Your task to perform on an android device: Show the shopping cart on walmart. Search for panasonic triple a on walmart, select the first entry, add it to the cart, then select checkout. Image 0: 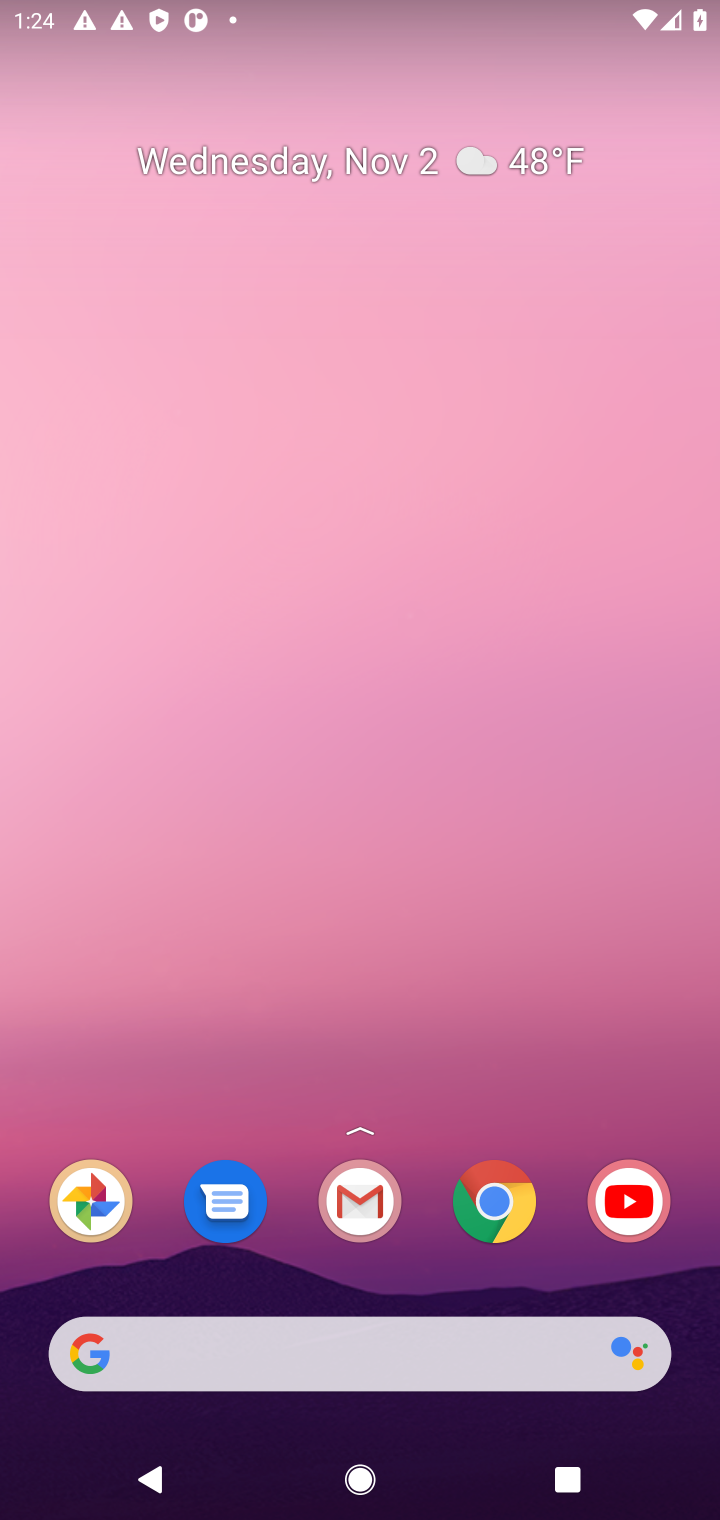
Step 0: click (513, 1210)
Your task to perform on an android device: Show the shopping cart on walmart. Search for panasonic triple a on walmart, select the first entry, add it to the cart, then select checkout. Image 1: 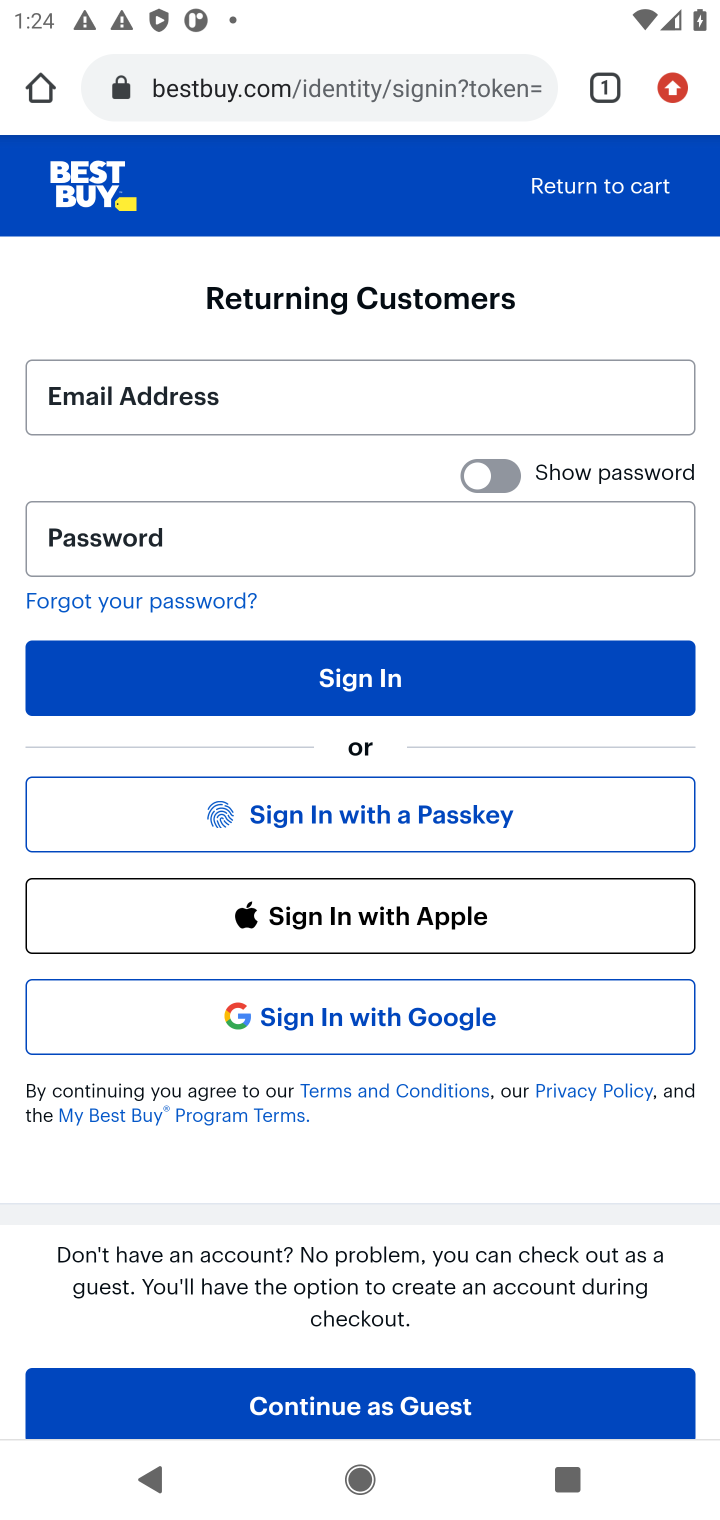
Step 1: click (388, 97)
Your task to perform on an android device: Show the shopping cart on walmart. Search for panasonic triple a on walmart, select the first entry, add it to the cart, then select checkout. Image 2: 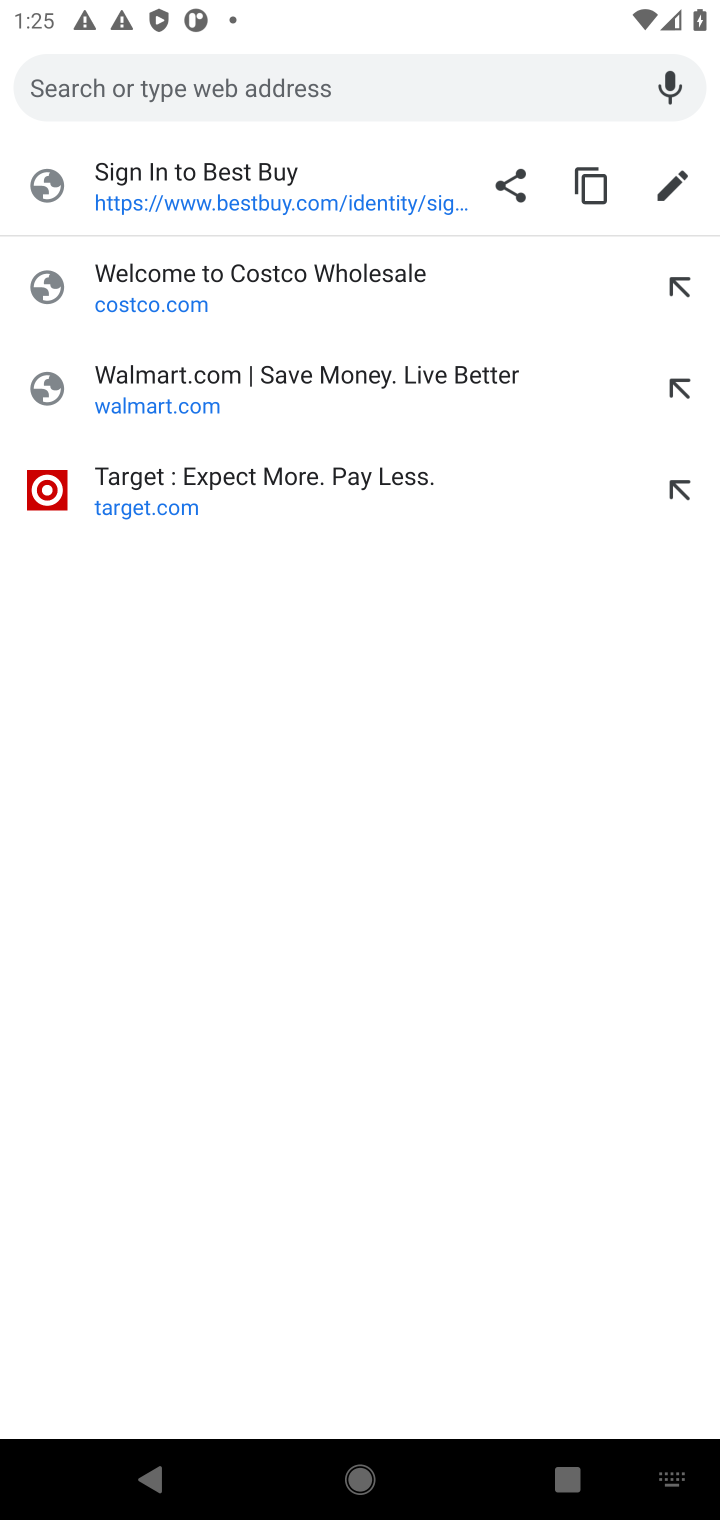
Step 2: click (200, 371)
Your task to perform on an android device: Show the shopping cart on walmart. Search for panasonic triple a on walmart, select the first entry, add it to the cart, then select checkout. Image 3: 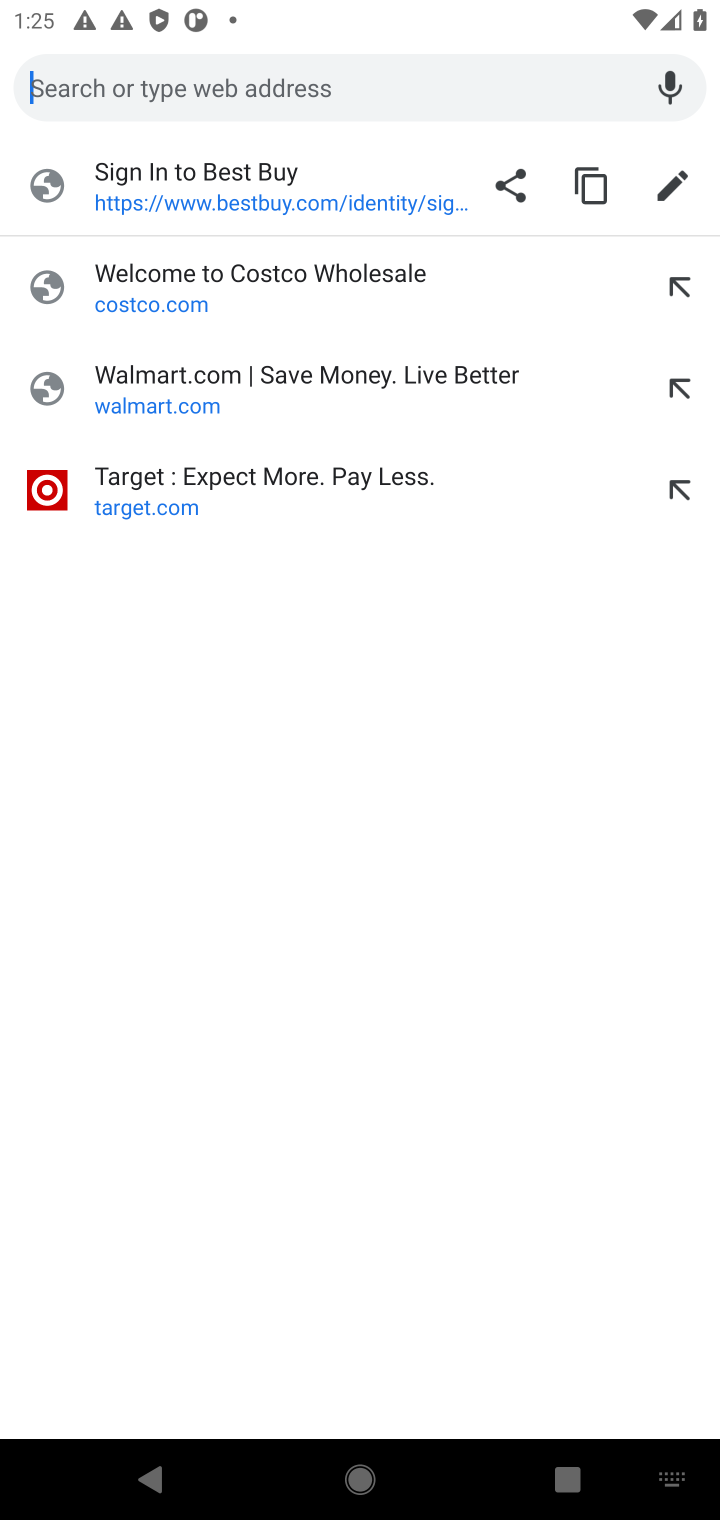
Step 3: type "walmart"
Your task to perform on an android device: Show the shopping cart on walmart. Search for panasonic triple a on walmart, select the first entry, add it to the cart, then select checkout. Image 4: 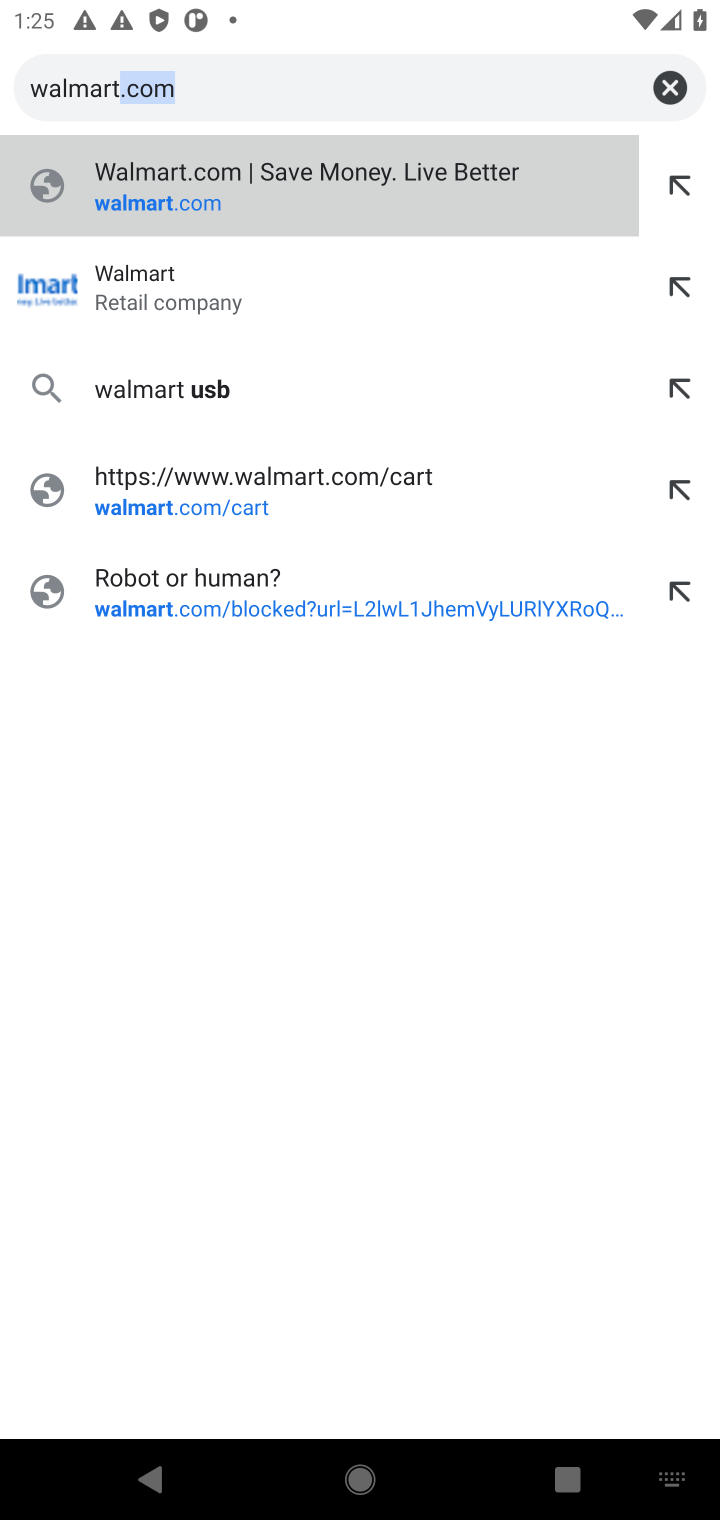
Step 4: press enter
Your task to perform on an android device: Show the shopping cart on walmart. Search for panasonic triple a on walmart, select the first entry, add it to the cart, then select checkout. Image 5: 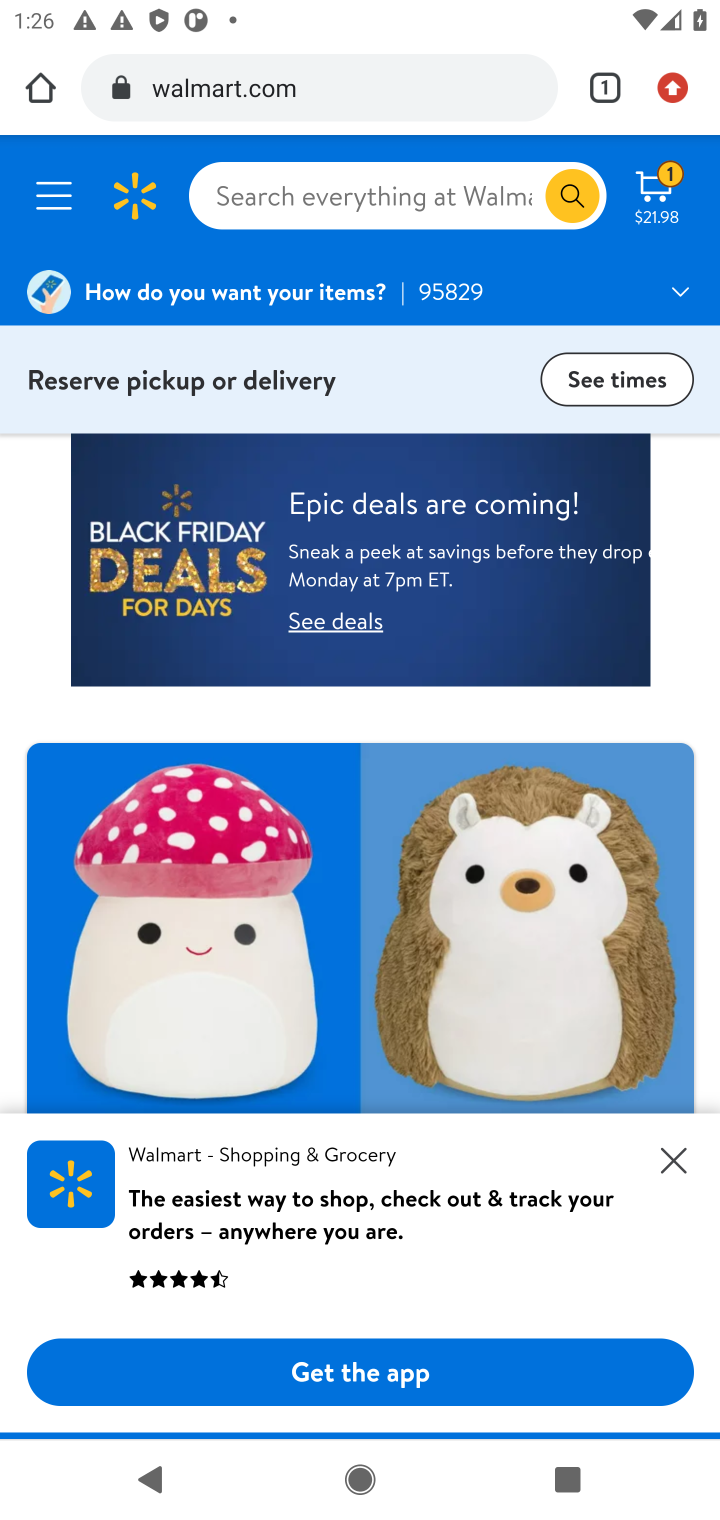
Step 5: click (389, 202)
Your task to perform on an android device: Show the shopping cart on walmart. Search for panasonic triple a on walmart, select the first entry, add it to the cart, then select checkout. Image 6: 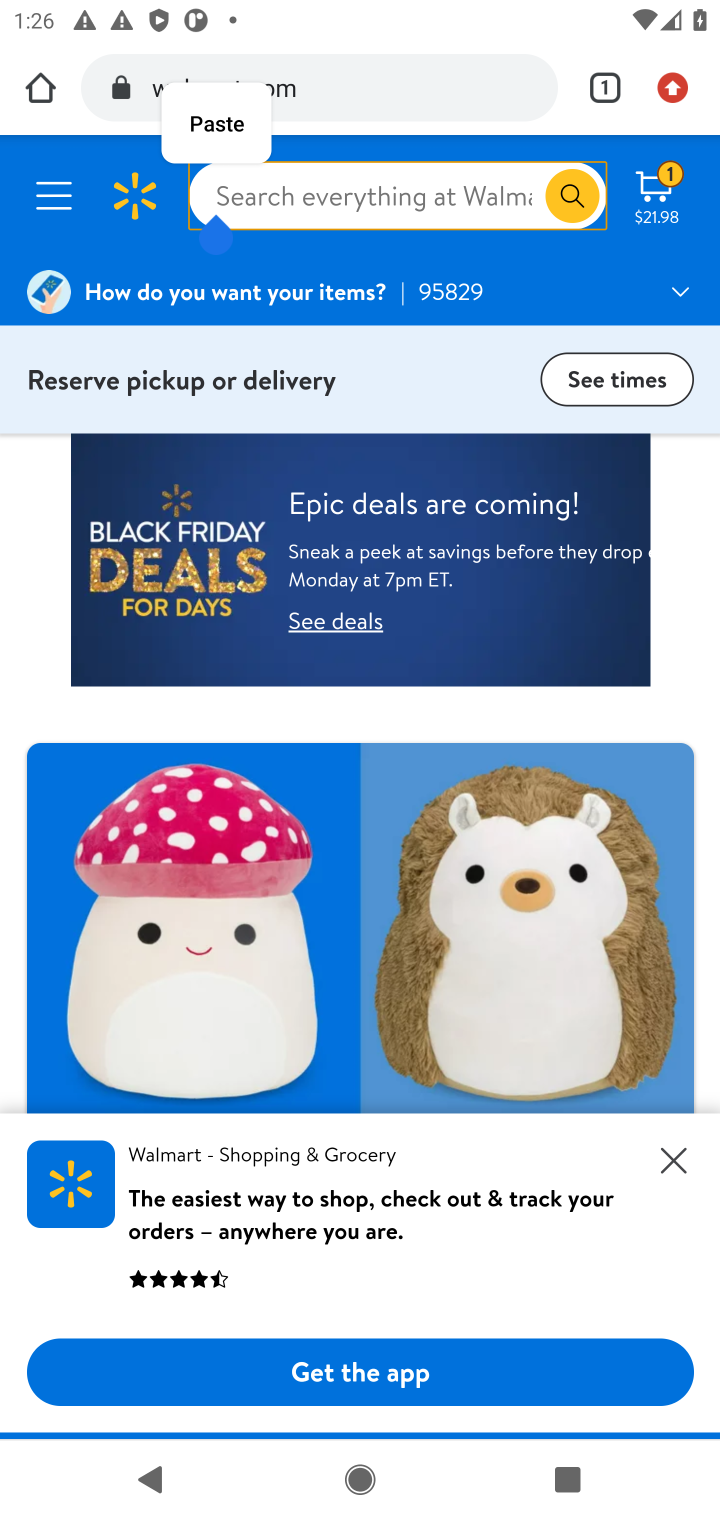
Step 6: type " panasonic triple a"
Your task to perform on an android device: Show the shopping cart on walmart. Search for panasonic triple a on walmart, select the first entry, add it to the cart, then select checkout. Image 7: 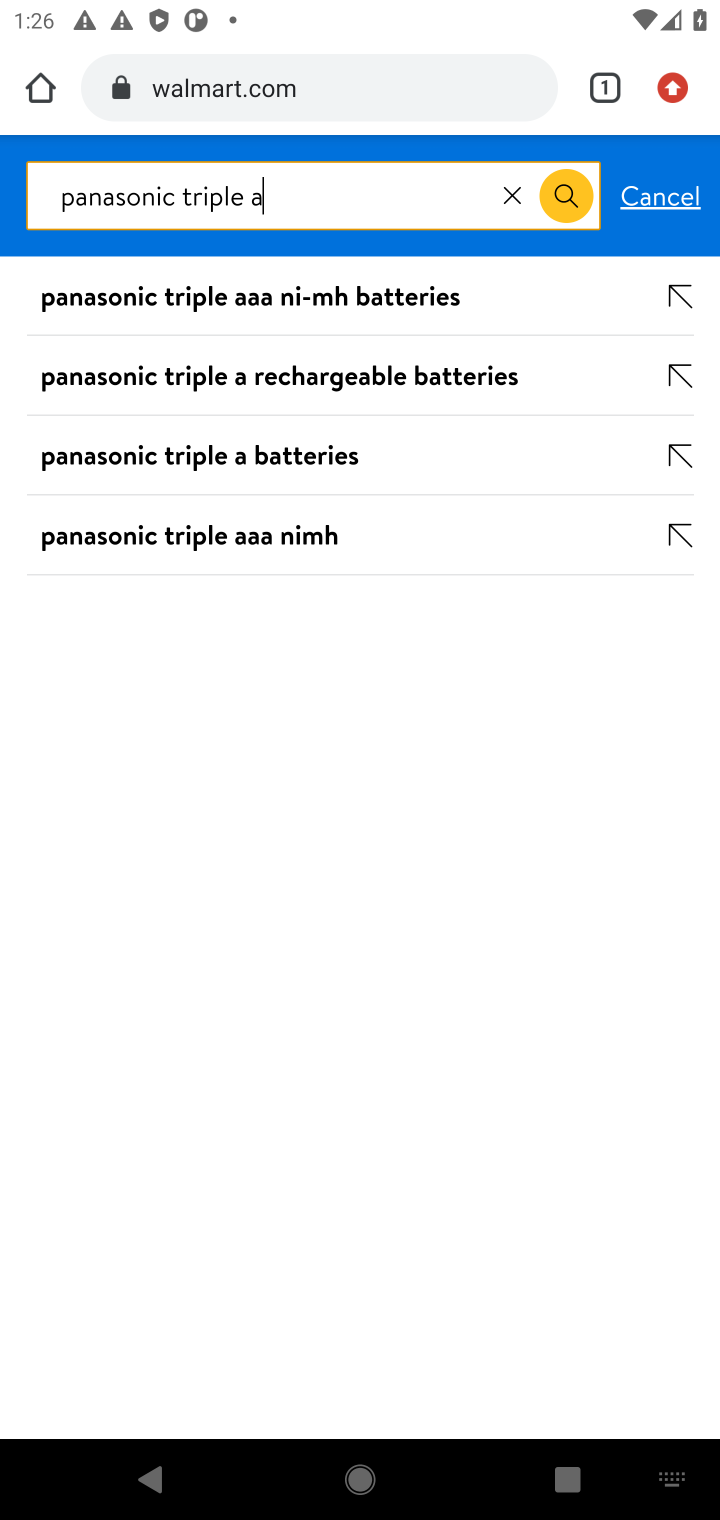
Step 7: click (334, 644)
Your task to perform on an android device: Show the shopping cart on walmart. Search for panasonic triple a on walmart, select the first entry, add it to the cart, then select checkout. Image 8: 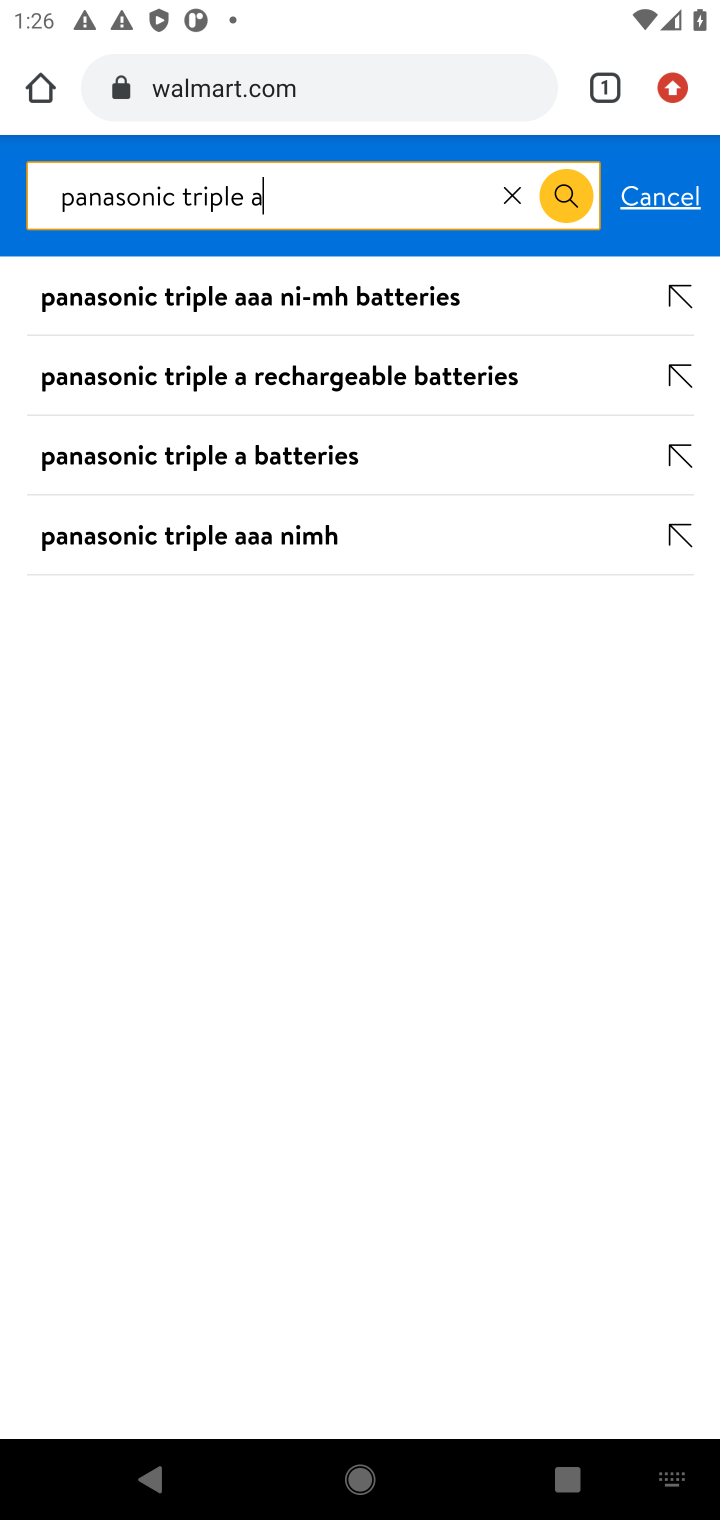
Step 8: click (258, 454)
Your task to perform on an android device: Show the shopping cart on walmart. Search for panasonic triple a on walmart, select the first entry, add it to the cart, then select checkout. Image 9: 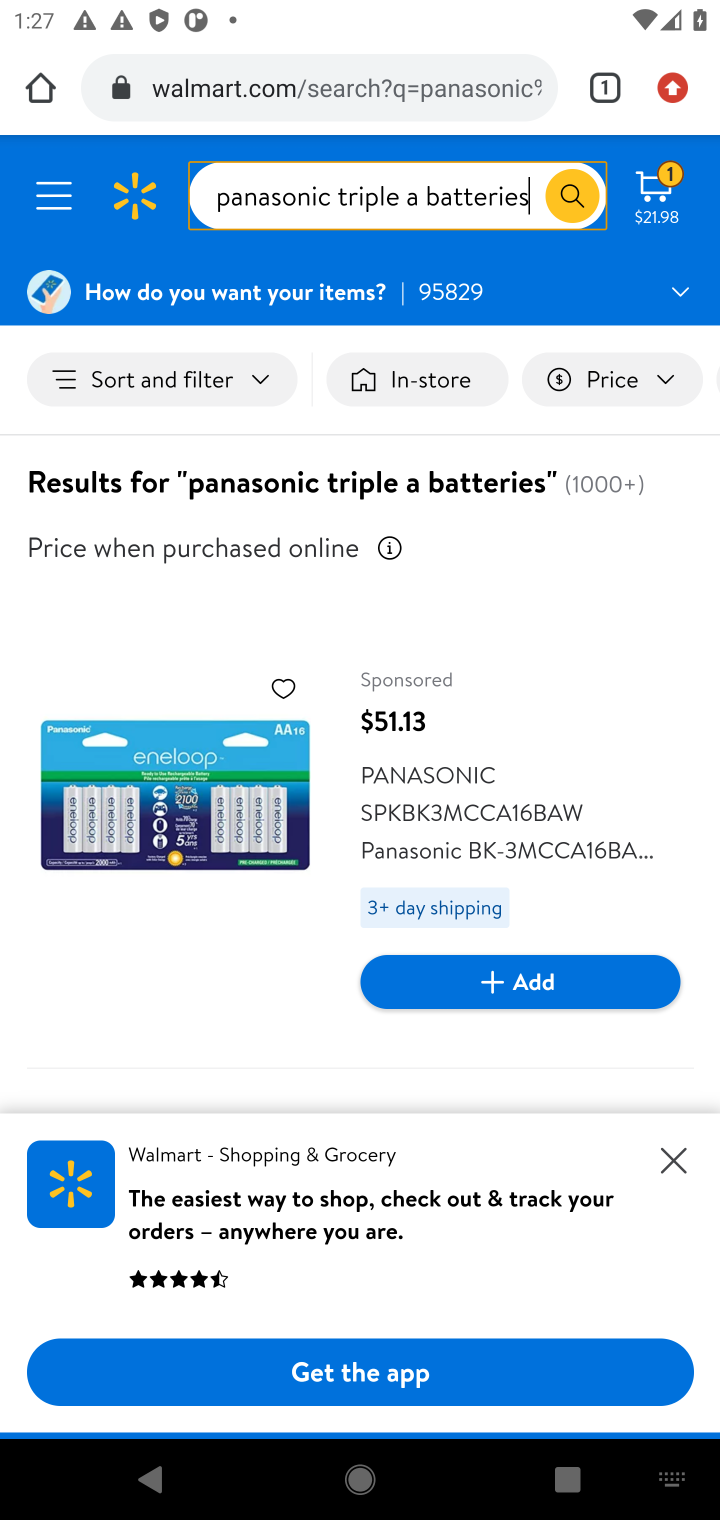
Step 9: drag from (242, 937) to (257, 605)
Your task to perform on an android device: Show the shopping cart on walmart. Search for panasonic triple a on walmart, select the first entry, add it to the cart, then select checkout. Image 10: 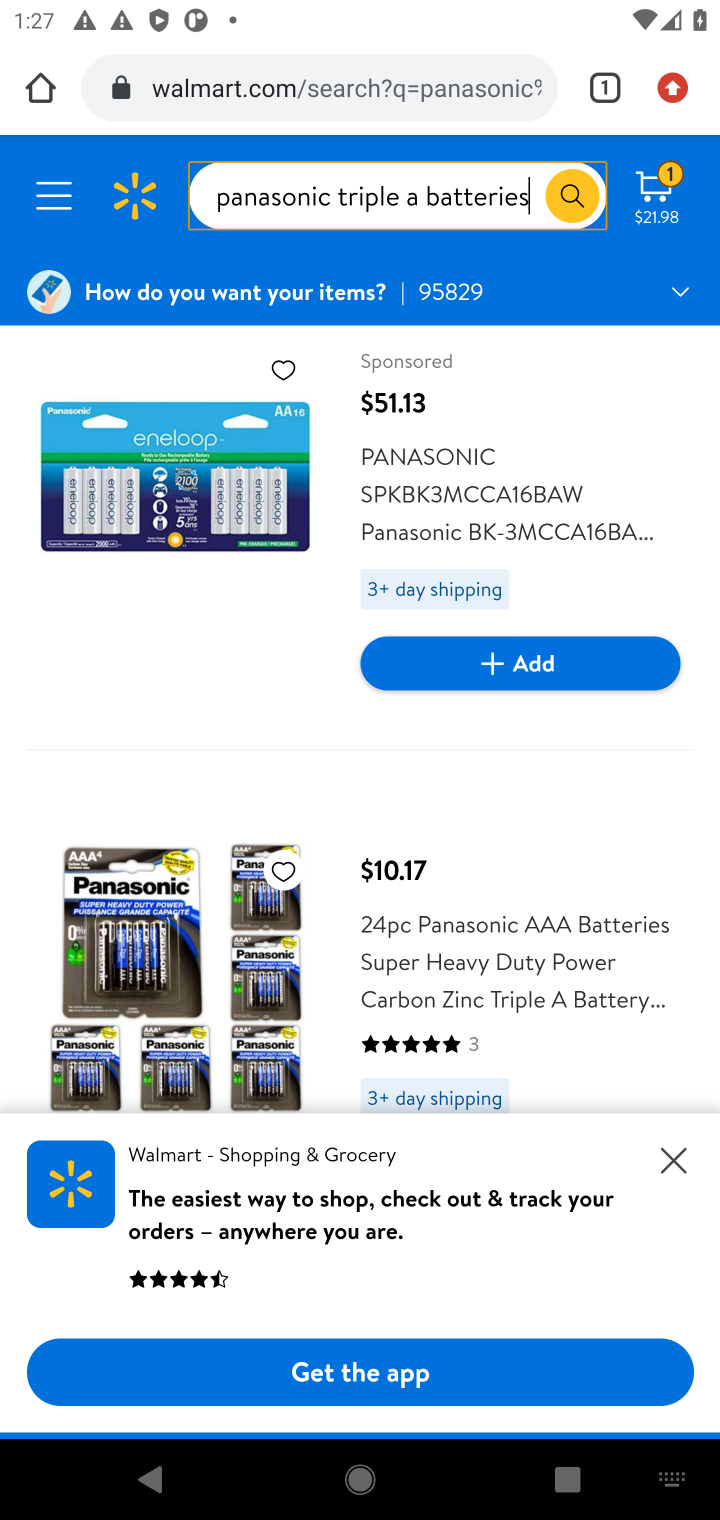
Step 10: click (209, 946)
Your task to perform on an android device: Show the shopping cart on walmart. Search for panasonic triple a on walmart, select the first entry, add it to the cart, then select checkout. Image 11: 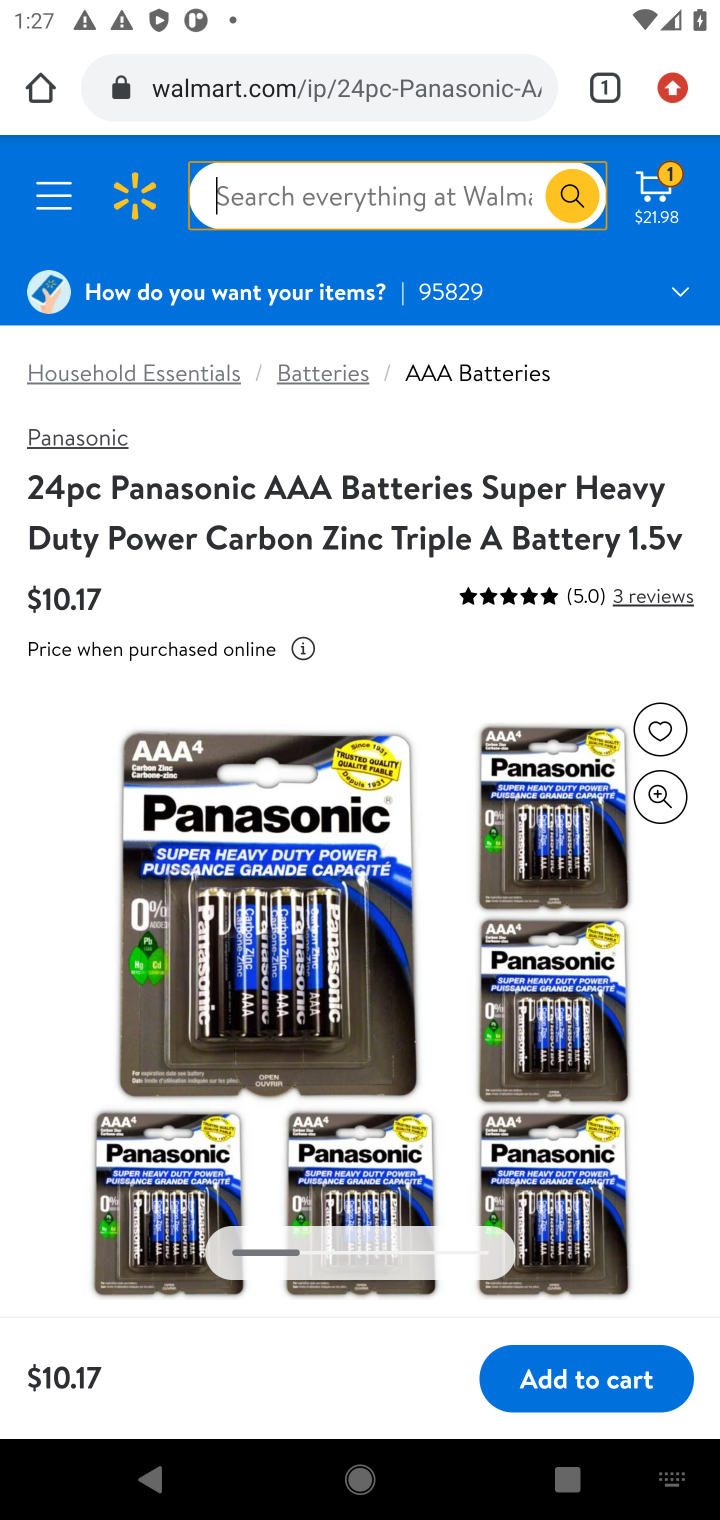
Step 11: click (570, 1376)
Your task to perform on an android device: Show the shopping cart on walmart. Search for panasonic triple a on walmart, select the first entry, add it to the cart, then select checkout. Image 12: 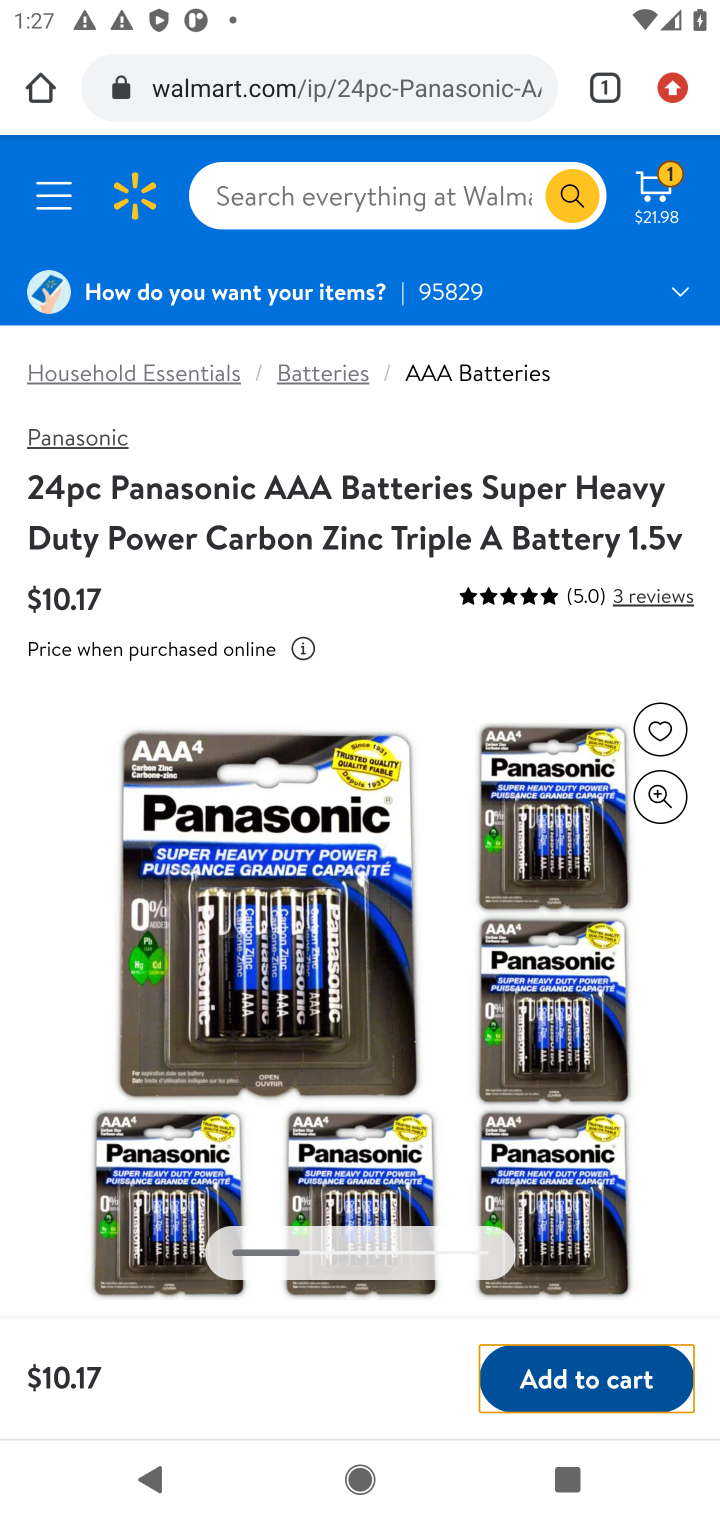
Step 12: click (570, 1376)
Your task to perform on an android device: Show the shopping cart on walmart. Search for panasonic triple a on walmart, select the first entry, add it to the cart, then select checkout. Image 13: 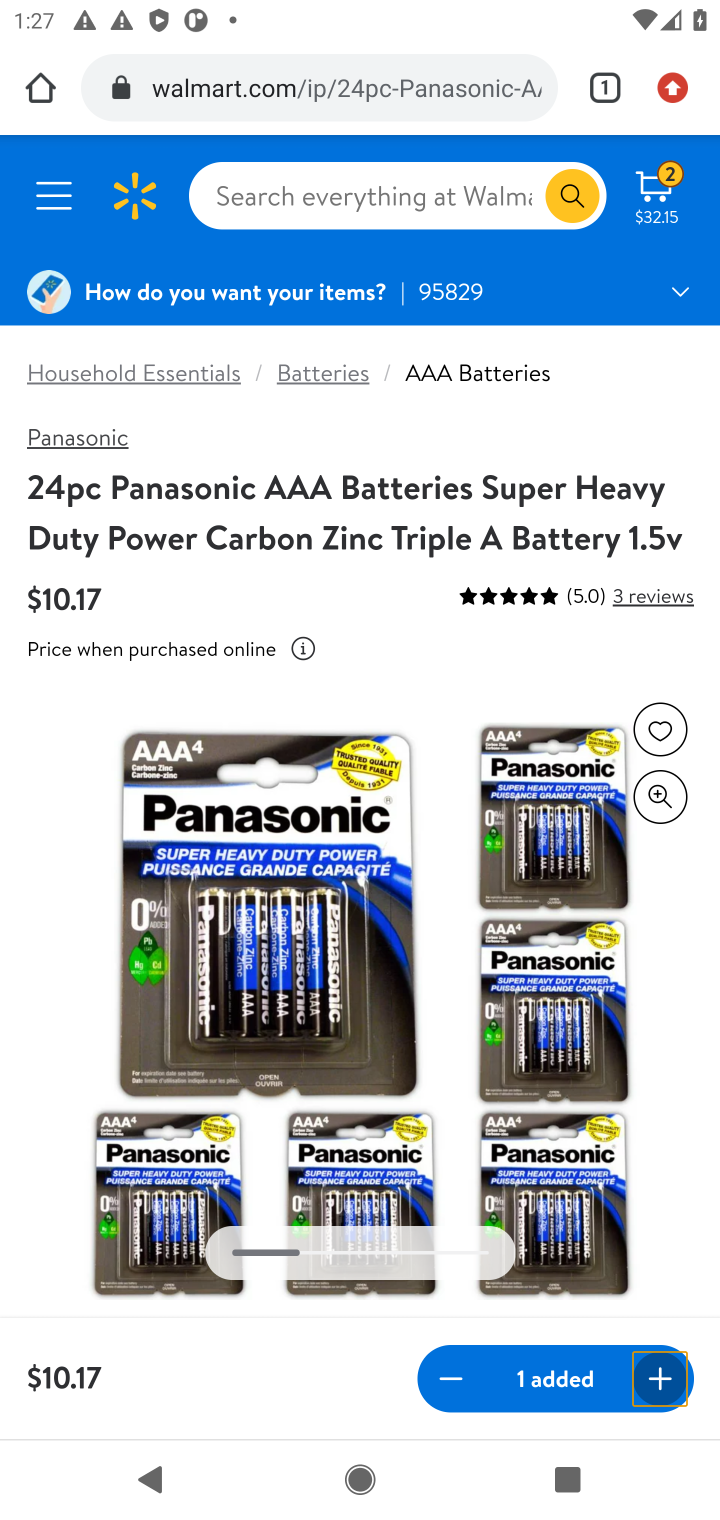
Step 13: click (657, 204)
Your task to perform on an android device: Show the shopping cart on walmart. Search for panasonic triple a on walmart, select the first entry, add it to the cart, then select checkout. Image 14: 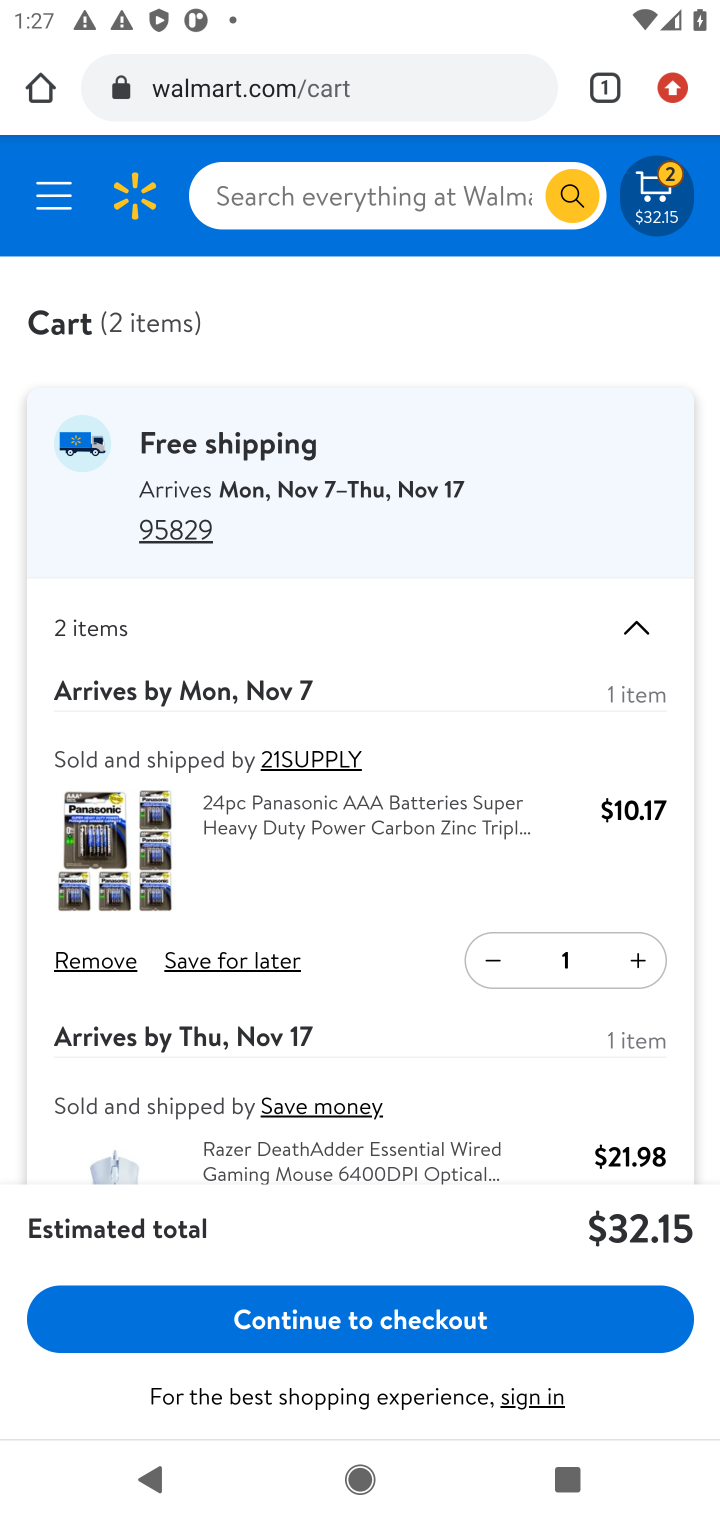
Step 14: click (364, 1328)
Your task to perform on an android device: Show the shopping cart on walmart. Search for panasonic triple a on walmart, select the first entry, add it to the cart, then select checkout. Image 15: 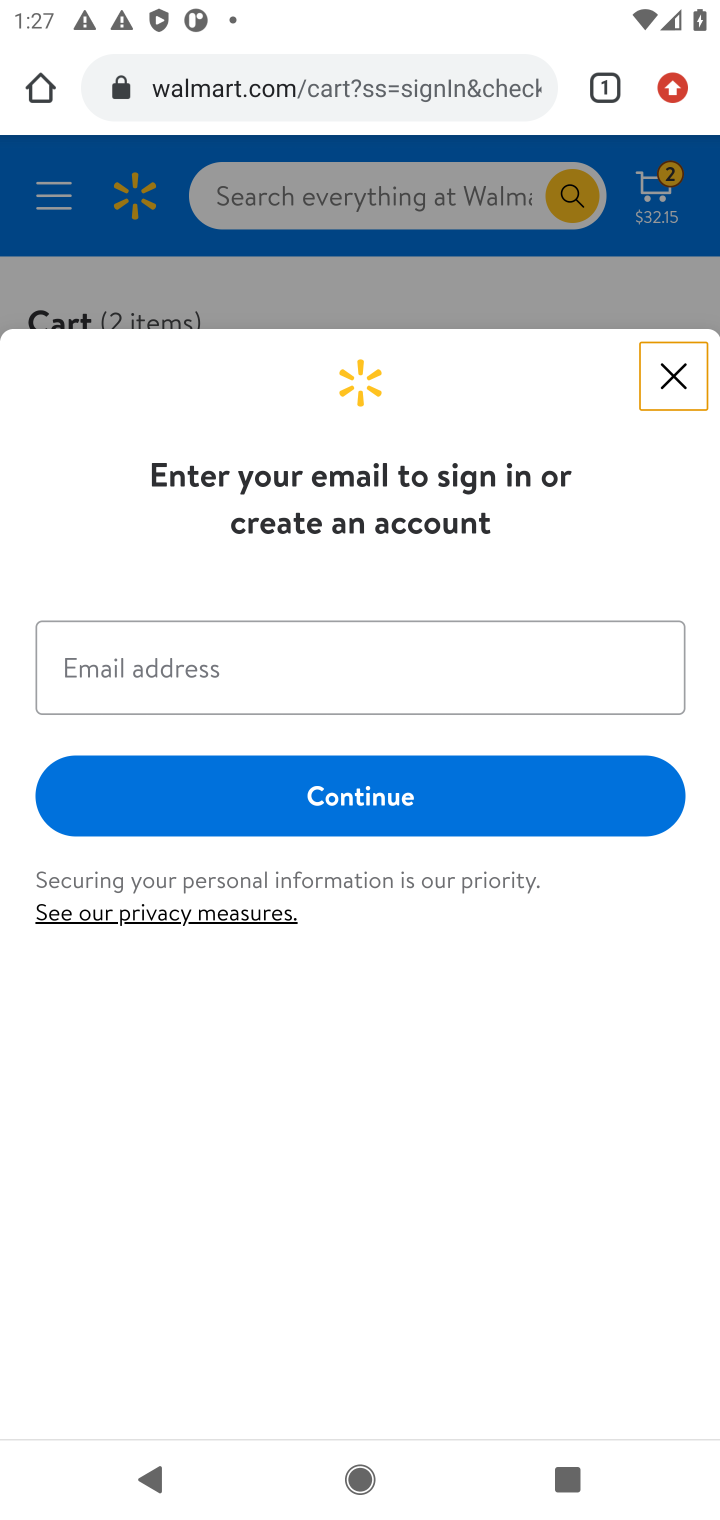
Step 15: task complete